Your task to perform on an android device: Open settings on Google Maps Image 0: 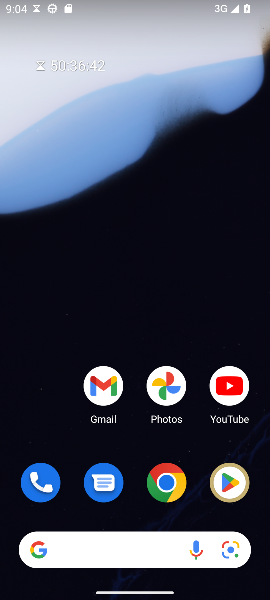
Step 0: drag from (136, 468) to (199, 102)
Your task to perform on an android device: Open settings on Google Maps Image 1: 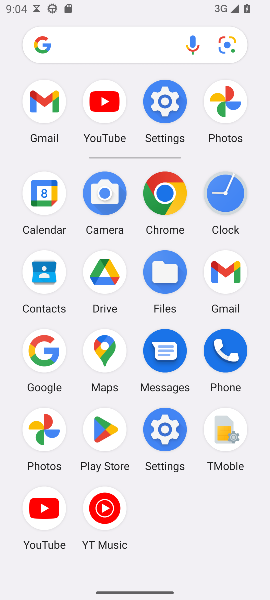
Step 1: click (110, 351)
Your task to perform on an android device: Open settings on Google Maps Image 2: 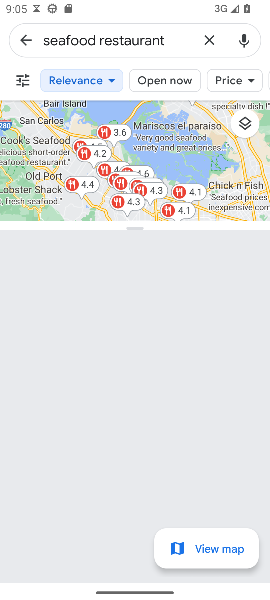
Step 2: press home button
Your task to perform on an android device: Open settings on Google Maps Image 3: 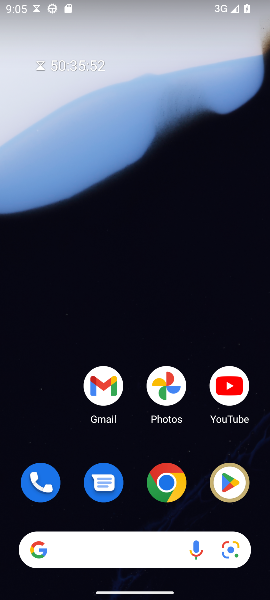
Step 3: drag from (96, 468) to (189, 91)
Your task to perform on an android device: Open settings on Google Maps Image 4: 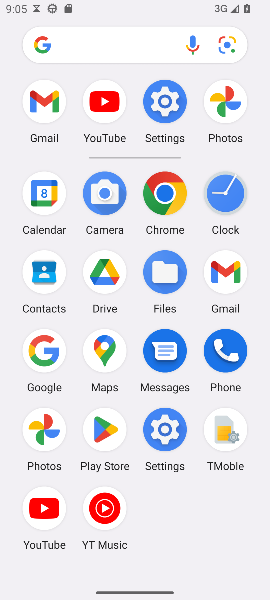
Step 4: click (98, 348)
Your task to perform on an android device: Open settings on Google Maps Image 5: 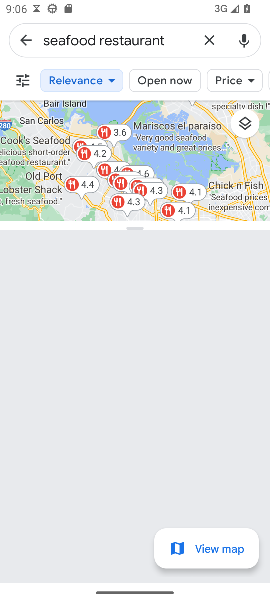
Step 5: click (26, 49)
Your task to perform on an android device: Open settings on Google Maps Image 6: 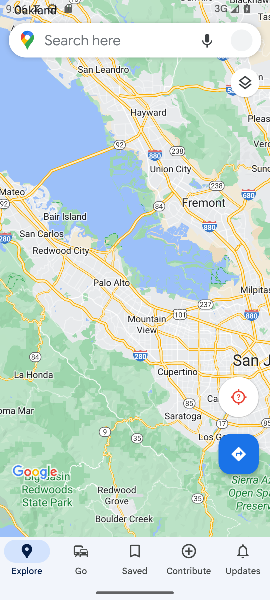
Step 6: click (29, 33)
Your task to perform on an android device: Open settings on Google Maps Image 7: 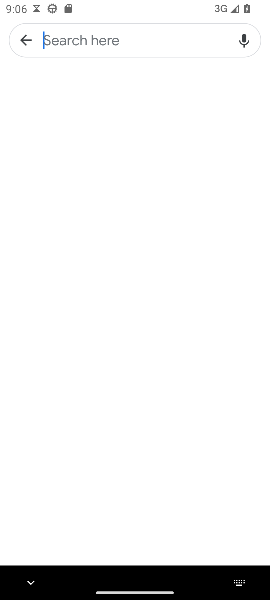
Step 7: click (20, 50)
Your task to perform on an android device: Open settings on Google Maps Image 8: 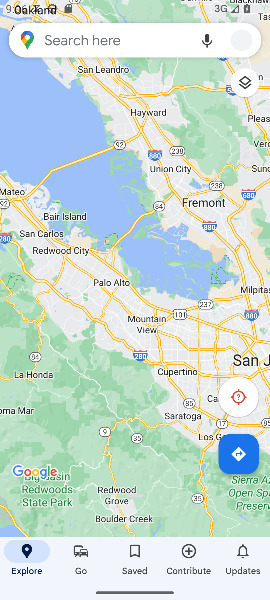
Step 8: click (240, 44)
Your task to perform on an android device: Open settings on Google Maps Image 9: 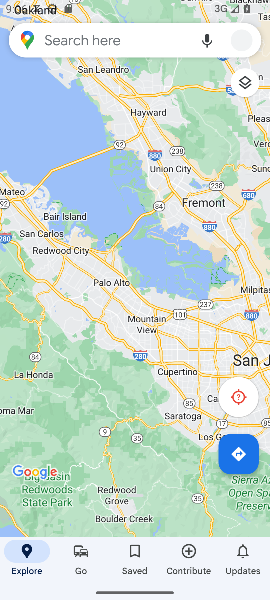
Step 9: click (240, 43)
Your task to perform on an android device: Open settings on Google Maps Image 10: 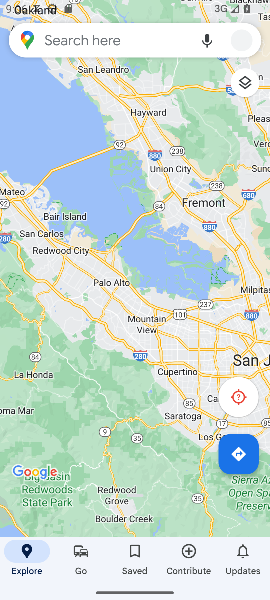
Step 10: click (240, 42)
Your task to perform on an android device: Open settings on Google Maps Image 11: 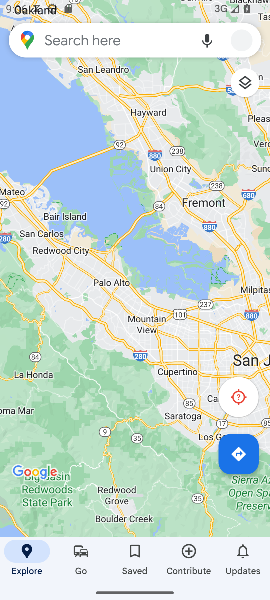
Step 11: task complete